Your task to perform on an android device: Go to sound settings Image 0: 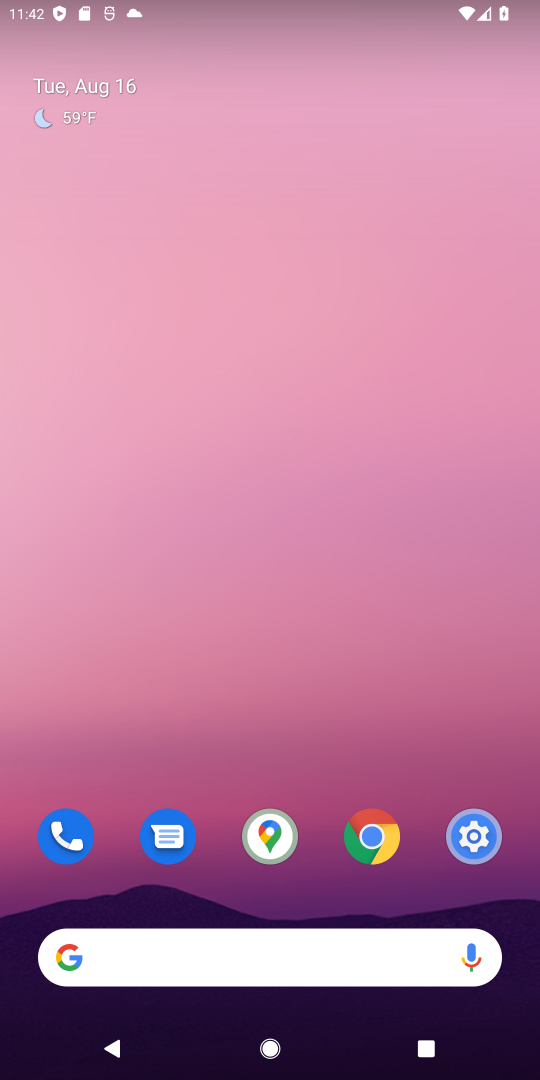
Step 0: drag from (259, 969) to (347, 115)
Your task to perform on an android device: Go to sound settings Image 1: 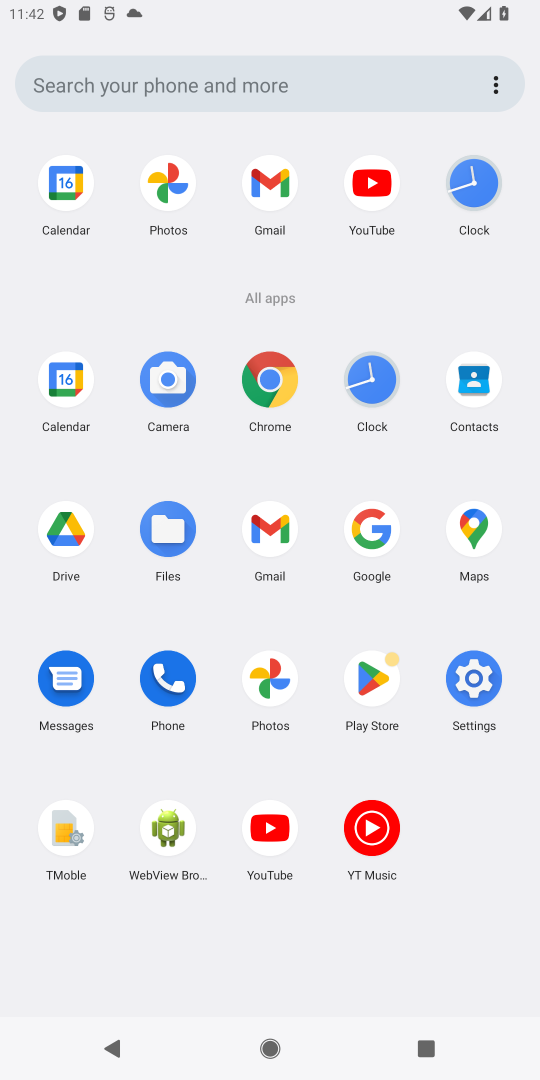
Step 1: click (472, 677)
Your task to perform on an android device: Go to sound settings Image 2: 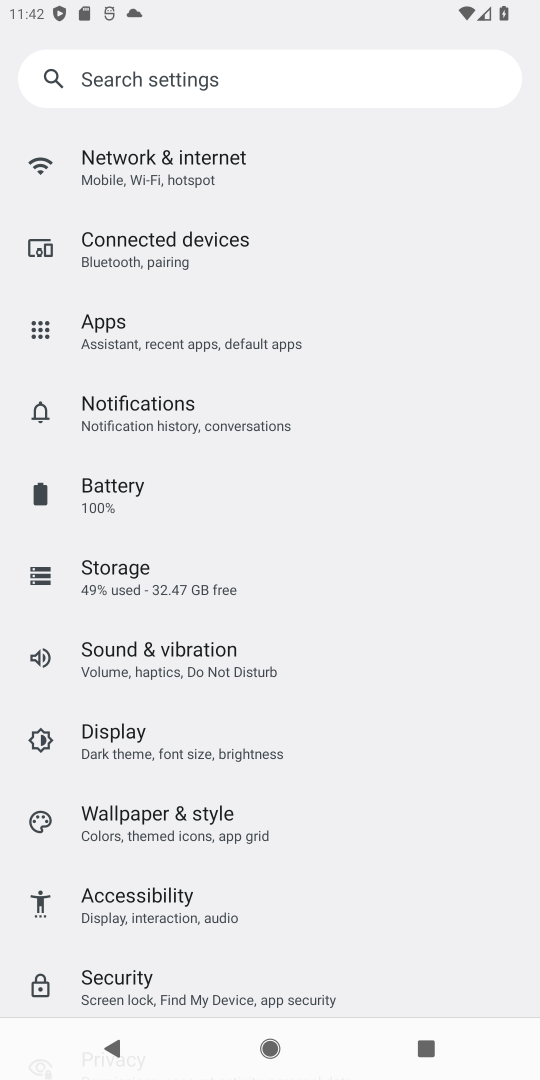
Step 2: click (227, 657)
Your task to perform on an android device: Go to sound settings Image 3: 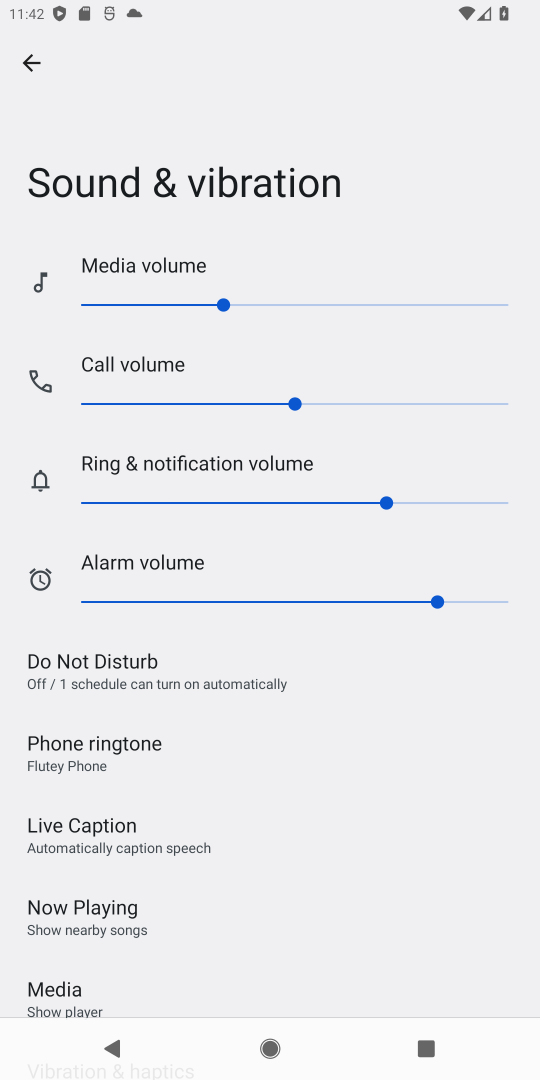
Step 3: task complete